Your task to perform on an android device: Open Chrome and go to settings Image 0: 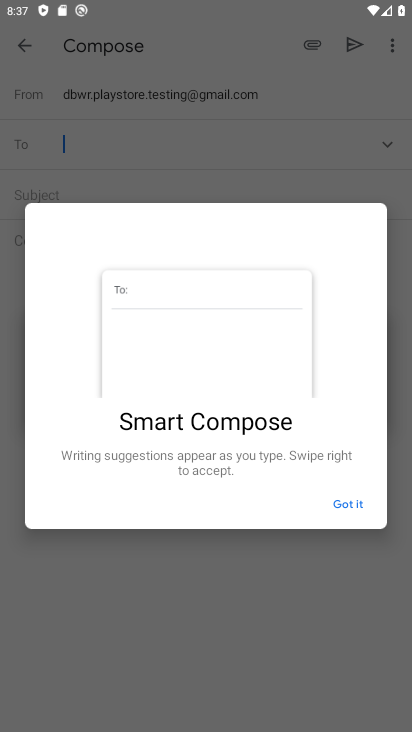
Step 0: press home button
Your task to perform on an android device: Open Chrome and go to settings Image 1: 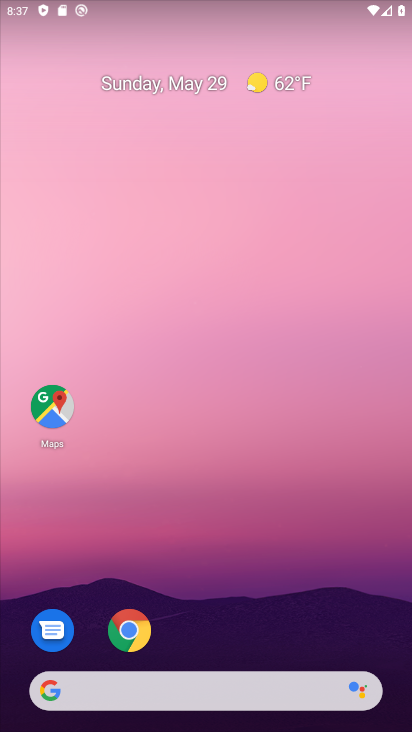
Step 1: click (130, 616)
Your task to perform on an android device: Open Chrome and go to settings Image 2: 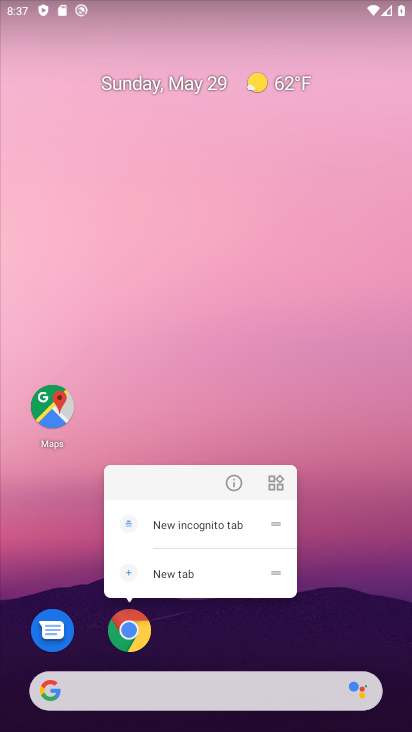
Step 2: click (134, 629)
Your task to perform on an android device: Open Chrome and go to settings Image 3: 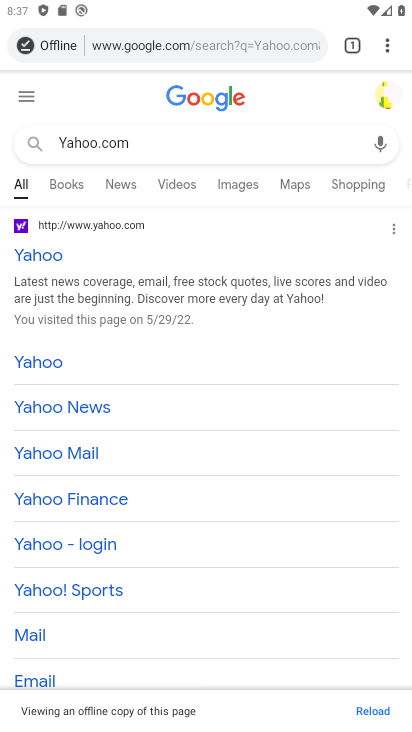
Step 3: click (387, 45)
Your task to perform on an android device: Open Chrome and go to settings Image 4: 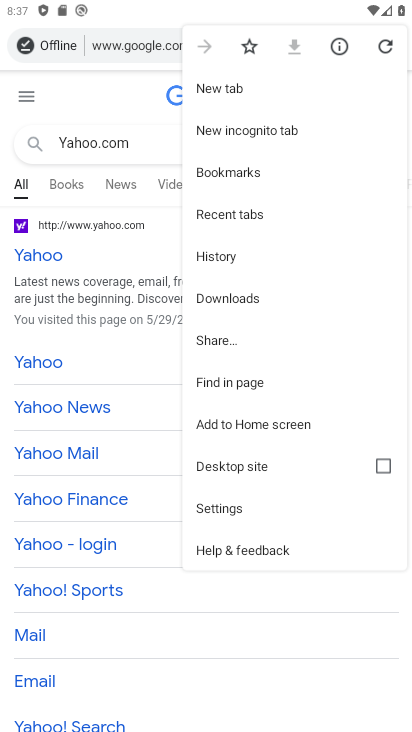
Step 4: click (221, 504)
Your task to perform on an android device: Open Chrome and go to settings Image 5: 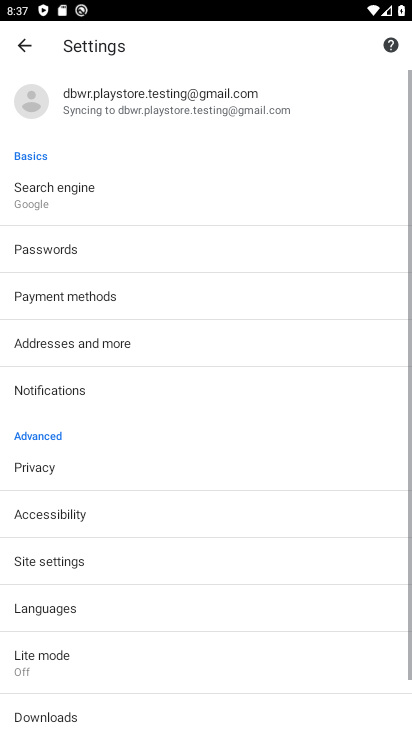
Step 5: task complete